Your task to perform on an android device: Open Yahoo.com Image 0: 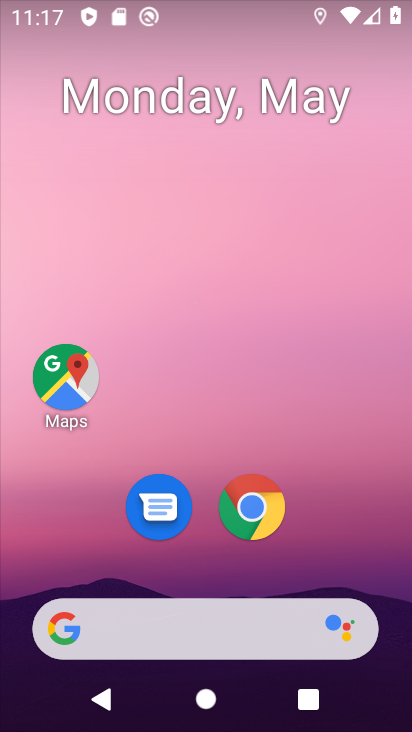
Step 0: click (269, 514)
Your task to perform on an android device: Open Yahoo.com Image 1: 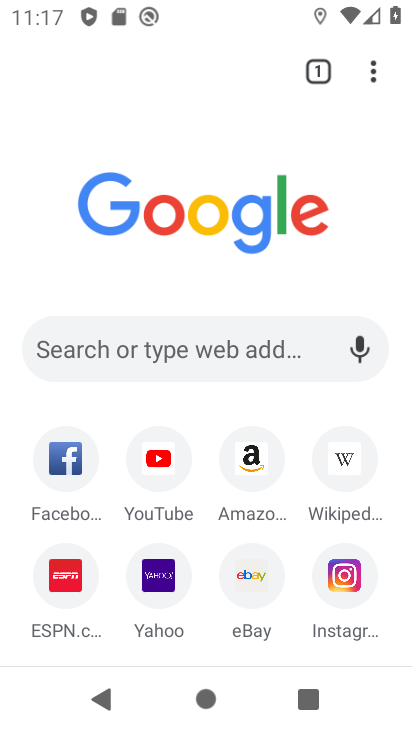
Step 1: click (170, 593)
Your task to perform on an android device: Open Yahoo.com Image 2: 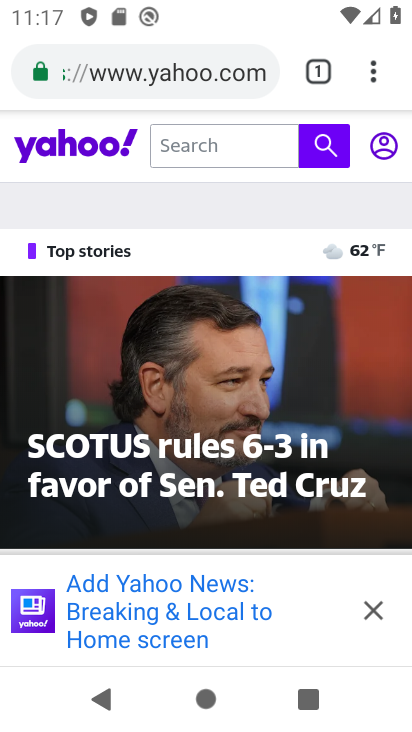
Step 2: task complete